Your task to perform on an android device: Open Google Maps and go to "Timeline" Image 0: 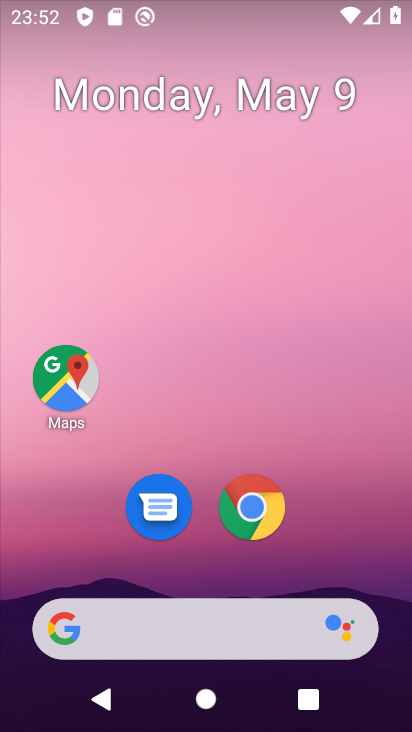
Step 0: click (353, 529)
Your task to perform on an android device: Open Google Maps and go to "Timeline" Image 1: 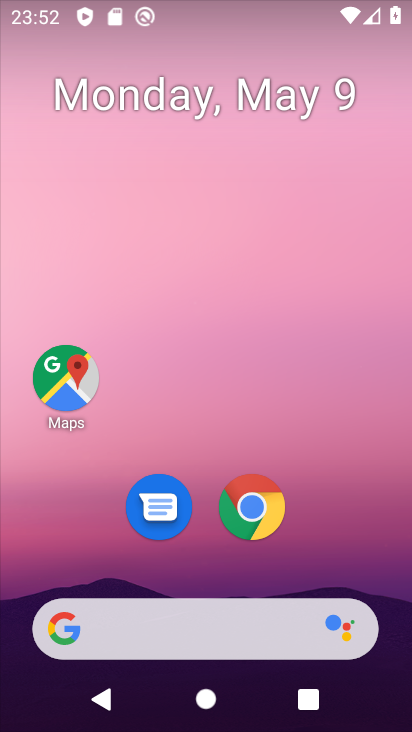
Step 1: click (78, 370)
Your task to perform on an android device: Open Google Maps and go to "Timeline" Image 2: 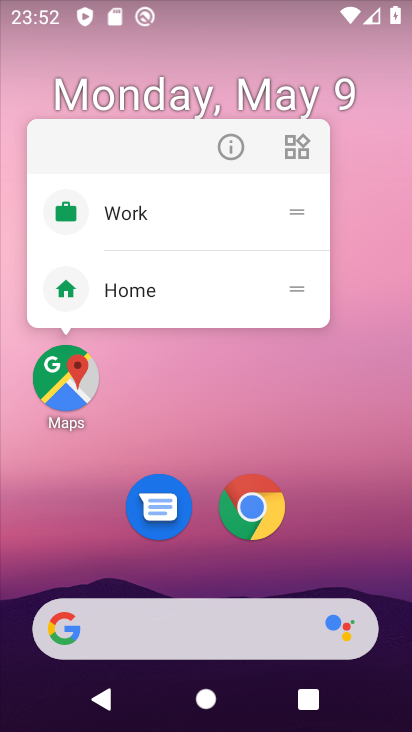
Step 2: click (80, 368)
Your task to perform on an android device: Open Google Maps and go to "Timeline" Image 3: 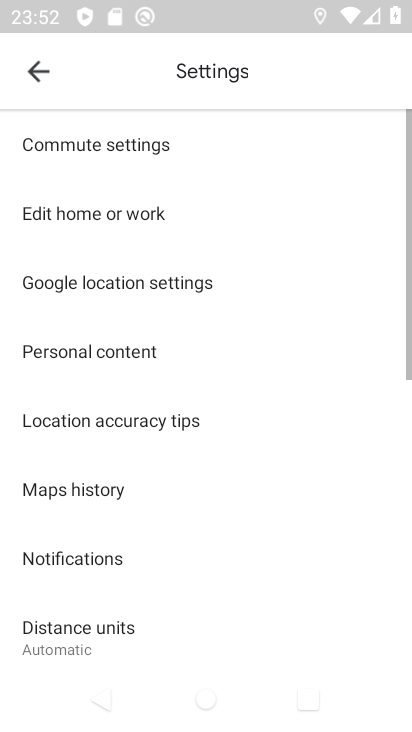
Step 3: drag from (200, 491) to (171, 186)
Your task to perform on an android device: Open Google Maps and go to "Timeline" Image 4: 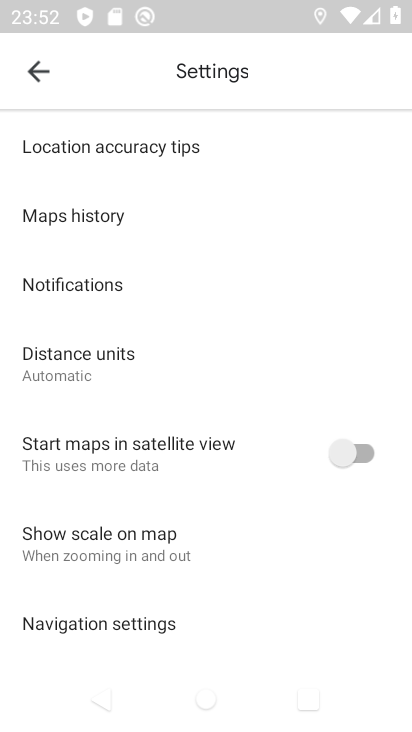
Step 4: click (40, 70)
Your task to perform on an android device: Open Google Maps and go to "Timeline" Image 5: 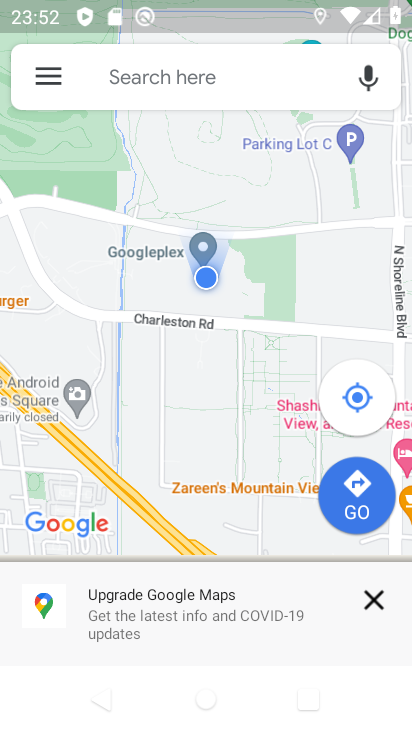
Step 5: click (48, 73)
Your task to perform on an android device: Open Google Maps and go to "Timeline" Image 6: 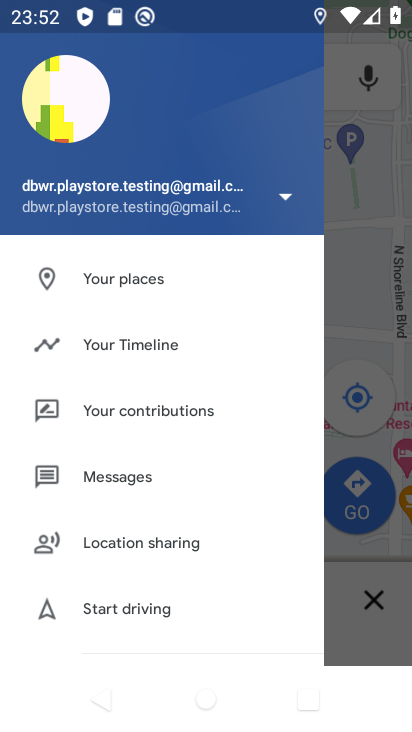
Step 6: click (126, 345)
Your task to perform on an android device: Open Google Maps and go to "Timeline" Image 7: 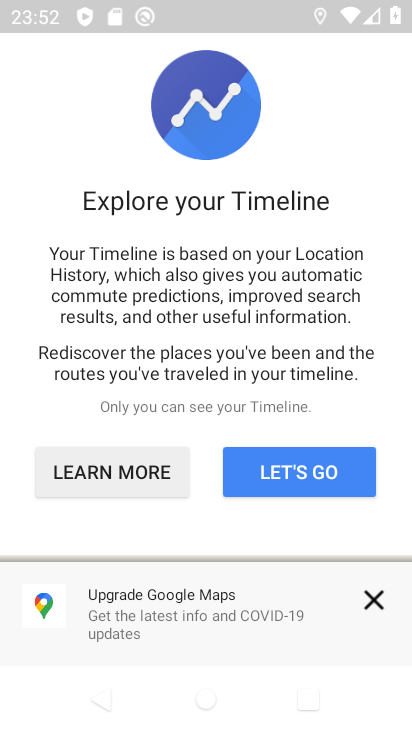
Step 7: click (245, 459)
Your task to perform on an android device: Open Google Maps and go to "Timeline" Image 8: 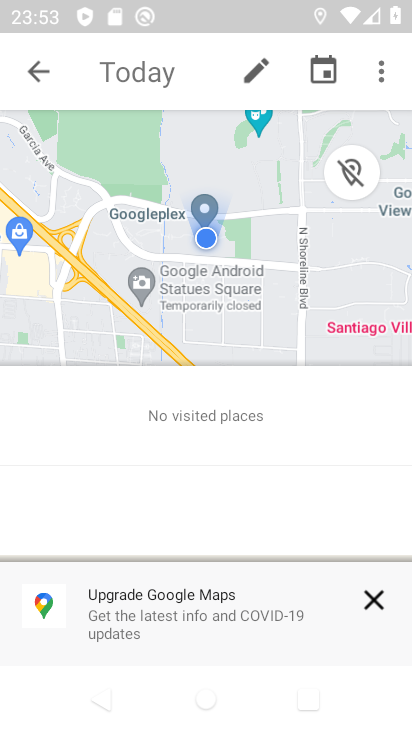
Step 8: task complete